Your task to perform on an android device: see creations saved in the google photos Image 0: 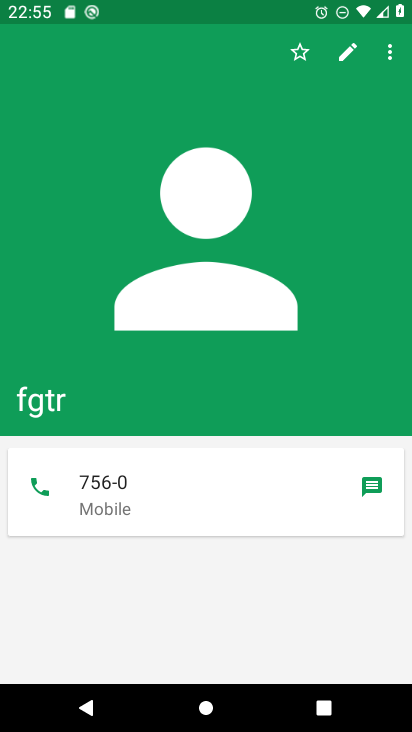
Step 0: press home button
Your task to perform on an android device: see creations saved in the google photos Image 1: 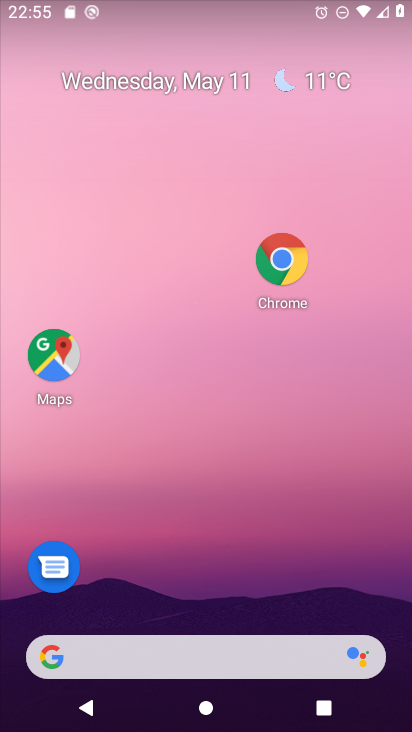
Step 1: drag from (121, 654) to (249, 173)
Your task to perform on an android device: see creations saved in the google photos Image 2: 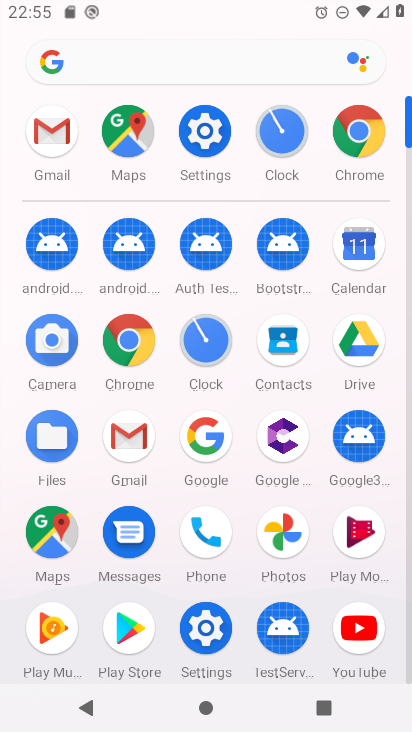
Step 2: click (282, 542)
Your task to perform on an android device: see creations saved in the google photos Image 3: 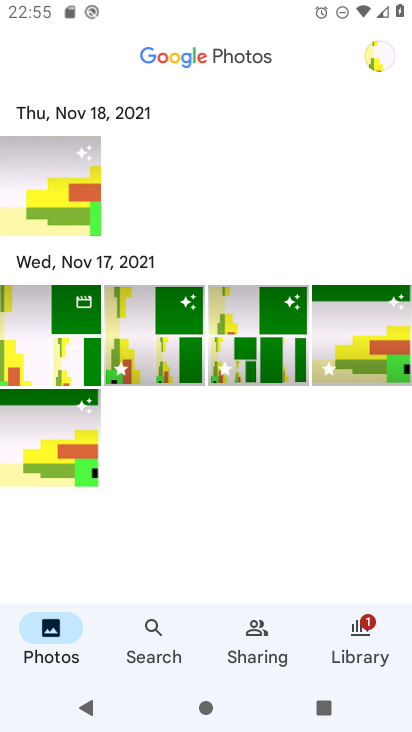
Step 3: click (163, 647)
Your task to perform on an android device: see creations saved in the google photos Image 4: 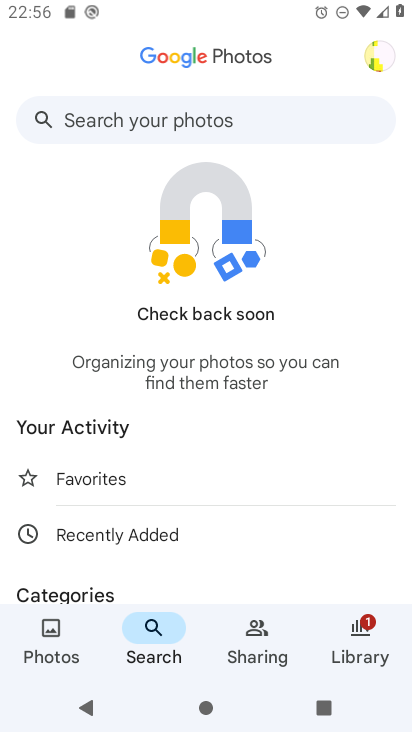
Step 4: drag from (190, 548) to (321, 199)
Your task to perform on an android device: see creations saved in the google photos Image 5: 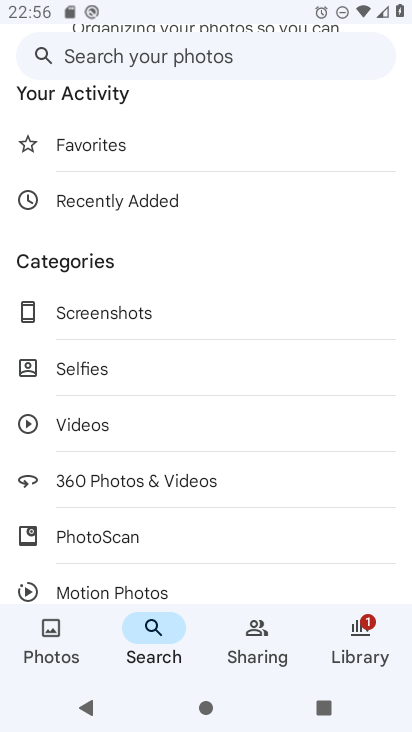
Step 5: drag from (167, 555) to (299, 246)
Your task to perform on an android device: see creations saved in the google photos Image 6: 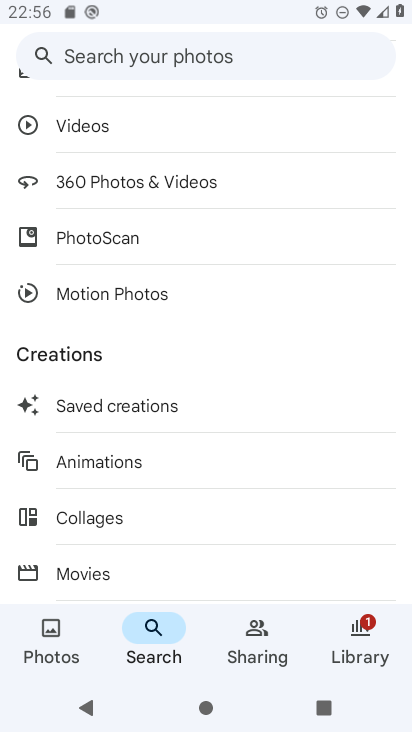
Step 6: click (129, 403)
Your task to perform on an android device: see creations saved in the google photos Image 7: 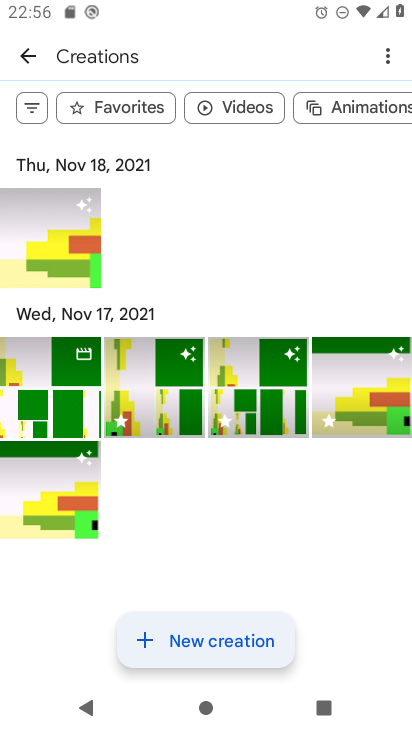
Step 7: task complete